Your task to perform on an android device: Go to internet settings Image 0: 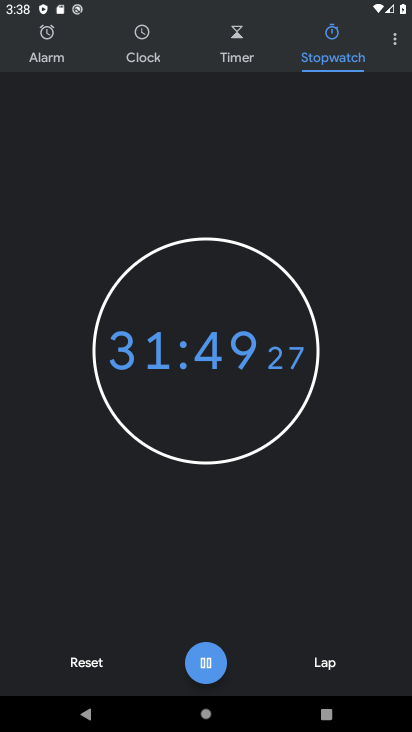
Step 0: press home button
Your task to perform on an android device: Go to internet settings Image 1: 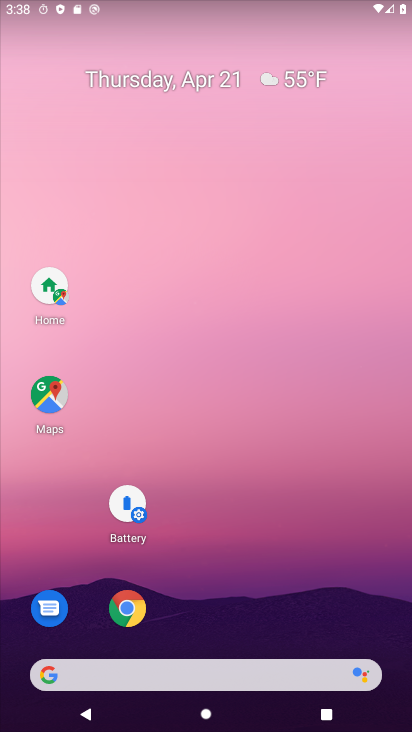
Step 1: drag from (292, 384) to (253, 132)
Your task to perform on an android device: Go to internet settings Image 2: 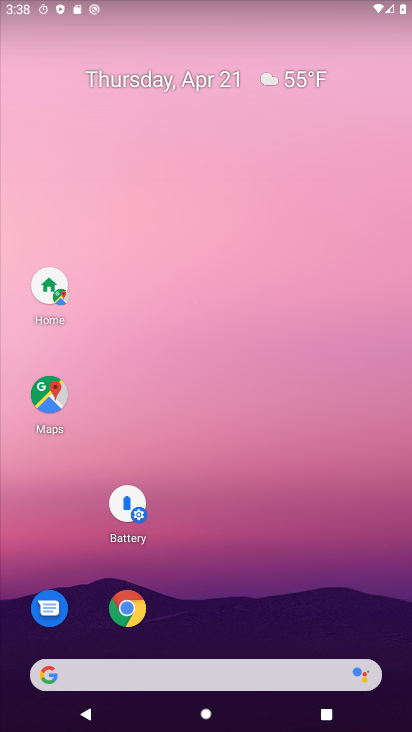
Step 2: drag from (269, 608) to (295, 81)
Your task to perform on an android device: Go to internet settings Image 3: 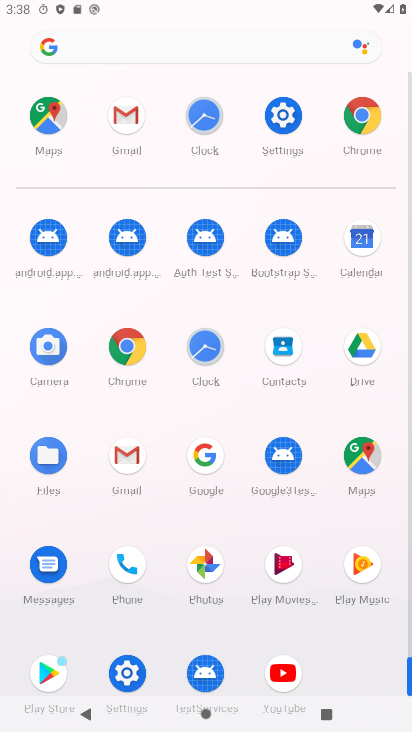
Step 3: click (298, 112)
Your task to perform on an android device: Go to internet settings Image 4: 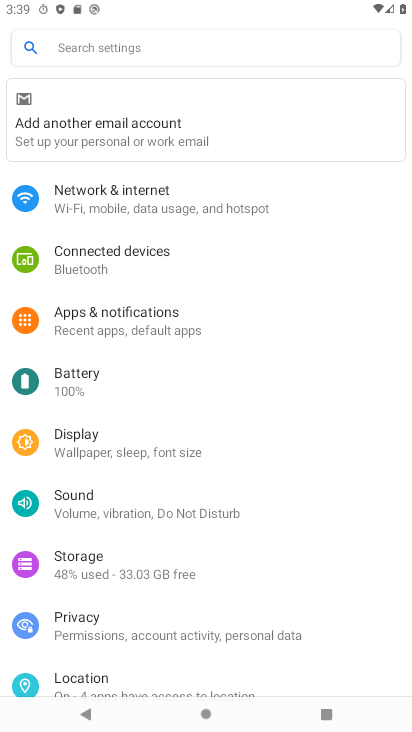
Step 4: click (81, 206)
Your task to perform on an android device: Go to internet settings Image 5: 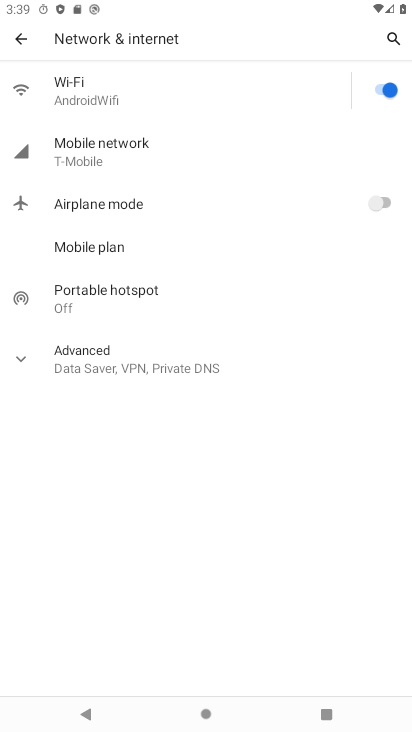
Step 5: click (83, 158)
Your task to perform on an android device: Go to internet settings Image 6: 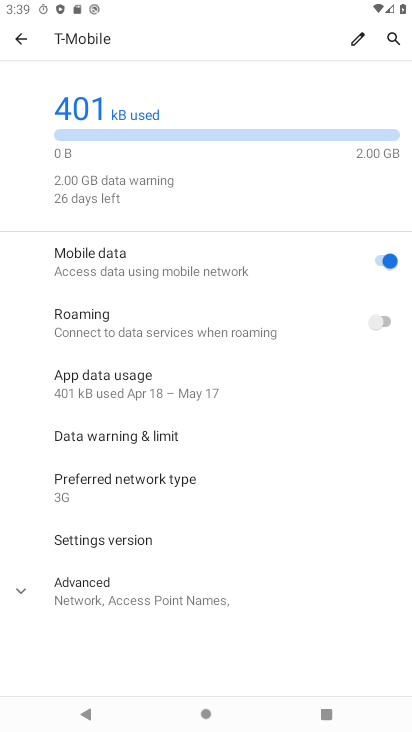
Step 6: click (82, 159)
Your task to perform on an android device: Go to internet settings Image 7: 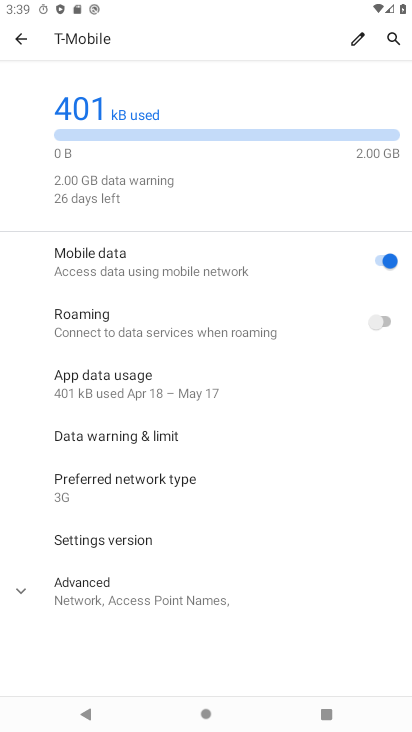
Step 7: task complete